Your task to perform on an android device: open app "Spotify: Music and Podcasts" (install if not already installed) Image 0: 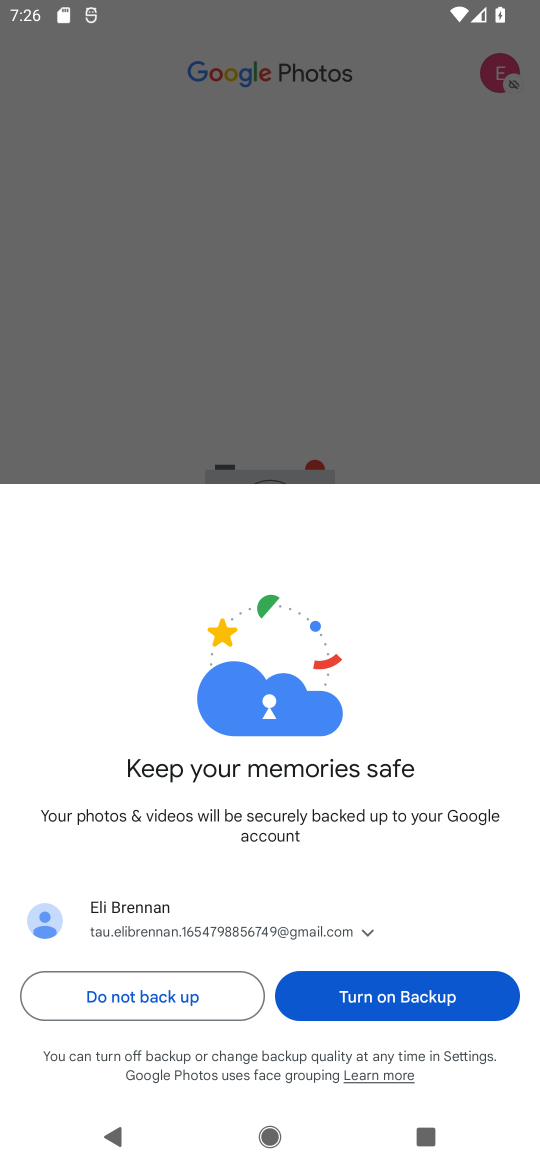
Step 0: press home button
Your task to perform on an android device: open app "Spotify: Music and Podcasts" (install if not already installed) Image 1: 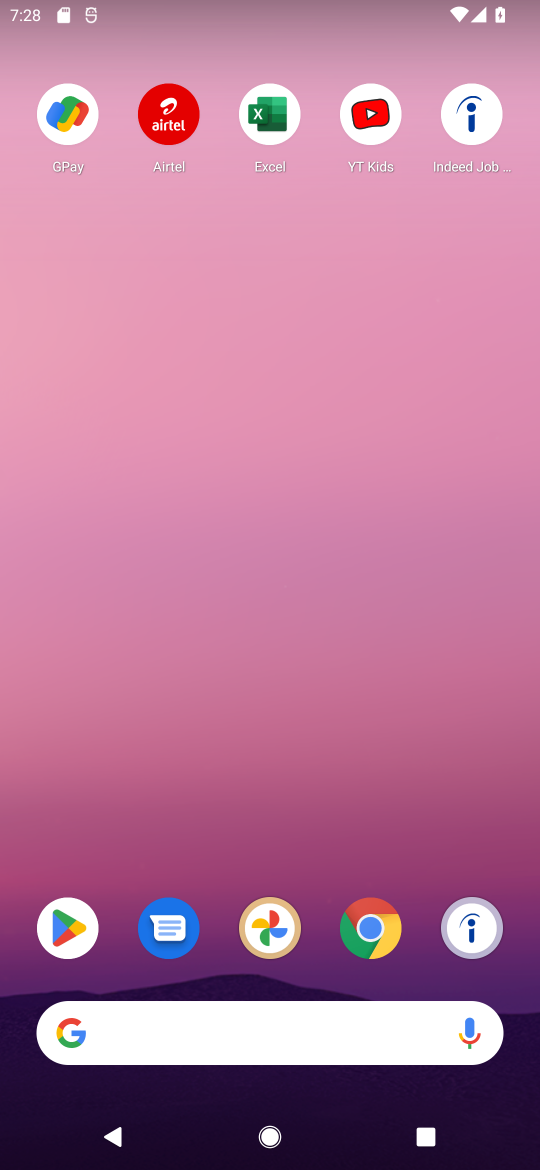
Step 1: click (88, 918)
Your task to perform on an android device: open app "Spotify: Music and Podcasts" (install if not already installed) Image 2: 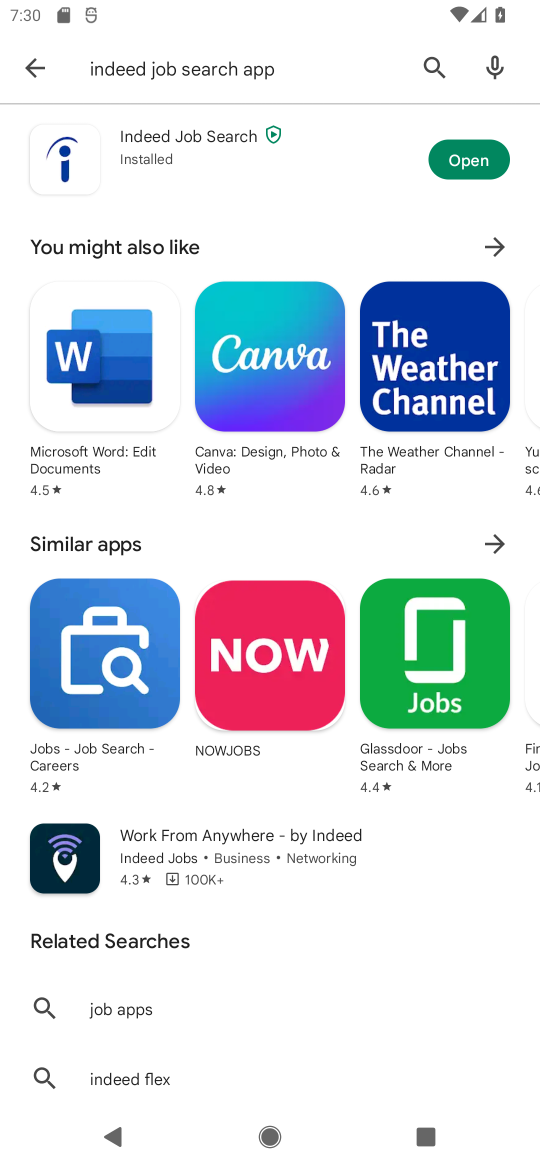
Step 2: click (425, 62)
Your task to perform on an android device: open app "Spotify: Music and Podcasts" (install if not already installed) Image 3: 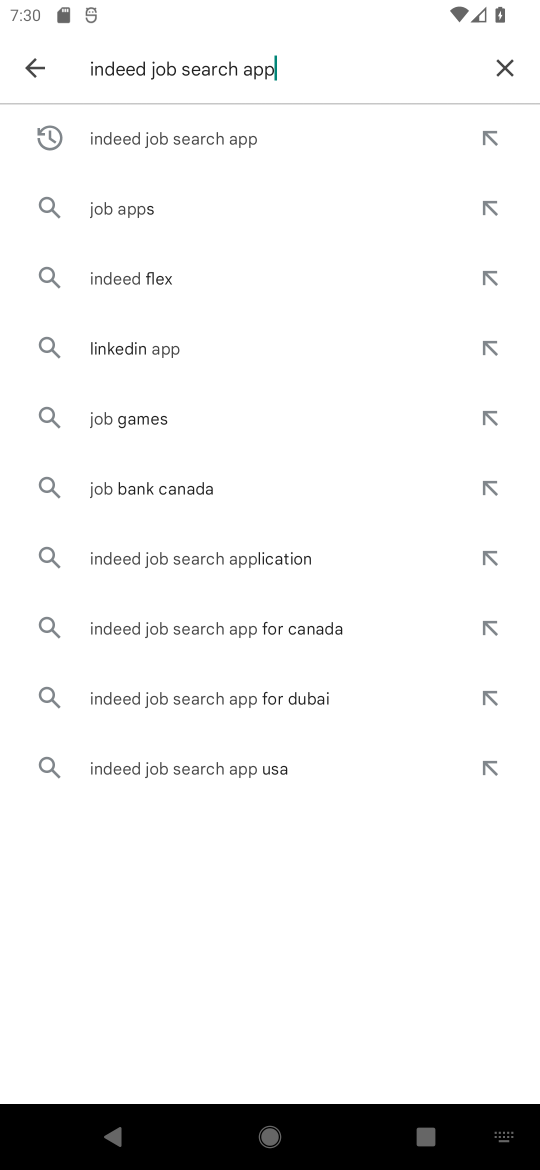
Step 3: click (522, 73)
Your task to perform on an android device: open app "Spotify: Music and Podcasts" (install if not already installed) Image 4: 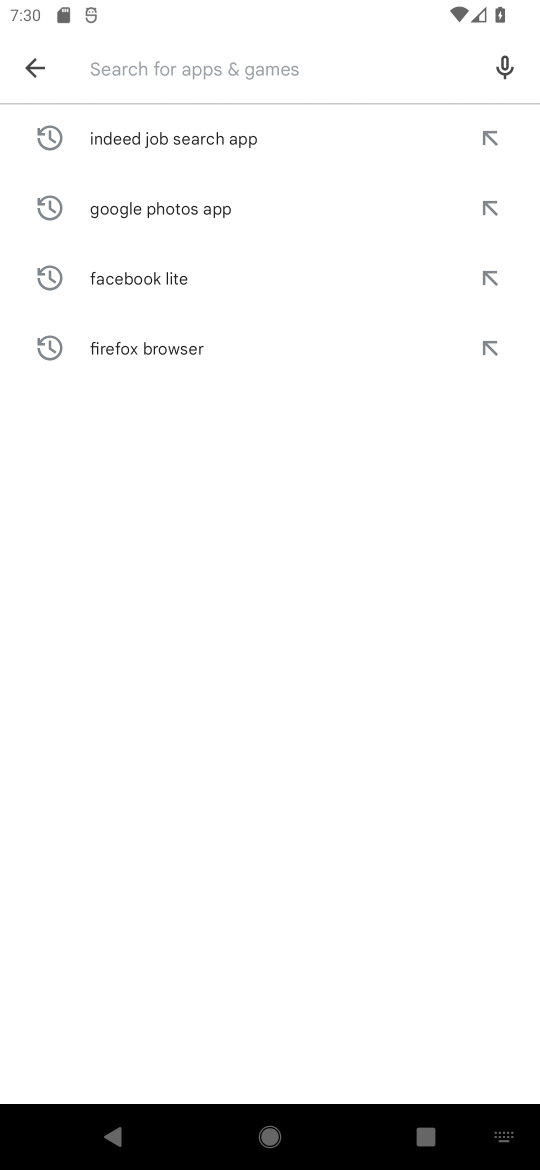
Step 4: type "spotify"
Your task to perform on an android device: open app "Spotify: Music and Podcasts" (install if not already installed) Image 5: 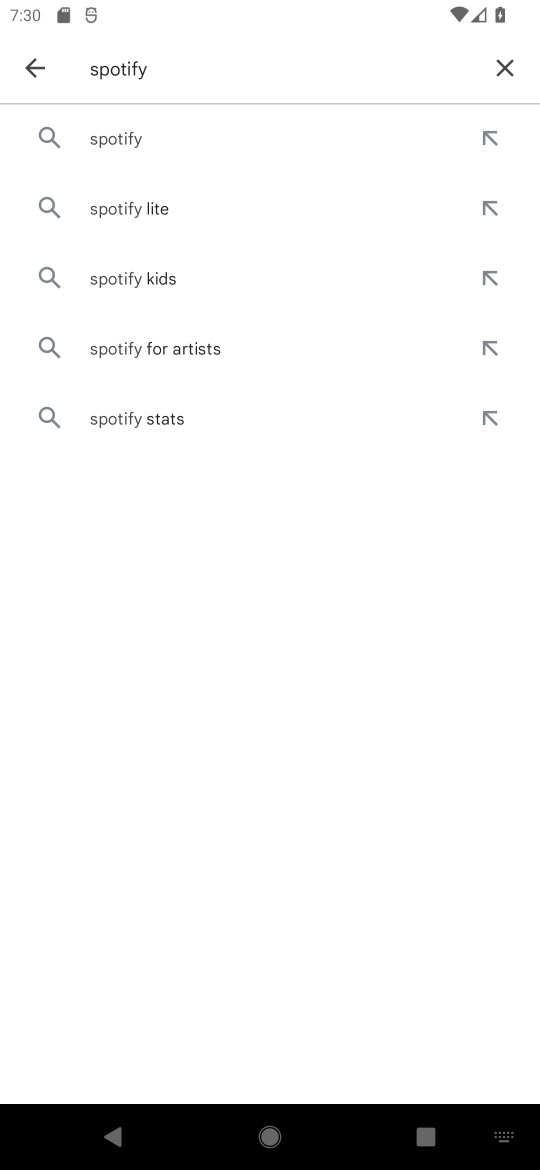
Step 5: click (299, 155)
Your task to perform on an android device: open app "Spotify: Music and Podcasts" (install if not already installed) Image 6: 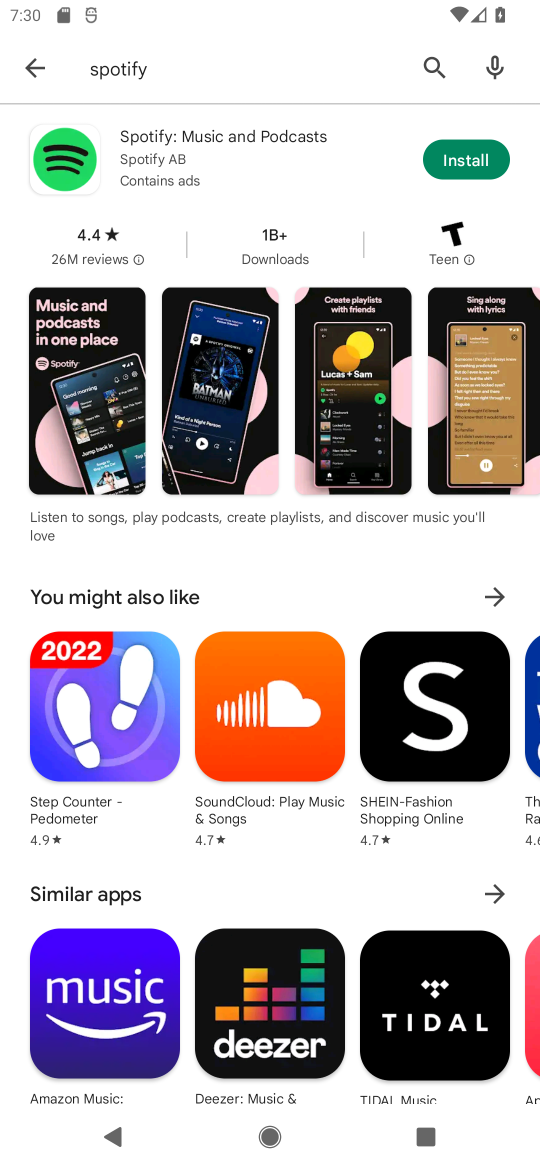
Step 6: click (480, 159)
Your task to perform on an android device: open app "Spotify: Music and Podcasts" (install if not already installed) Image 7: 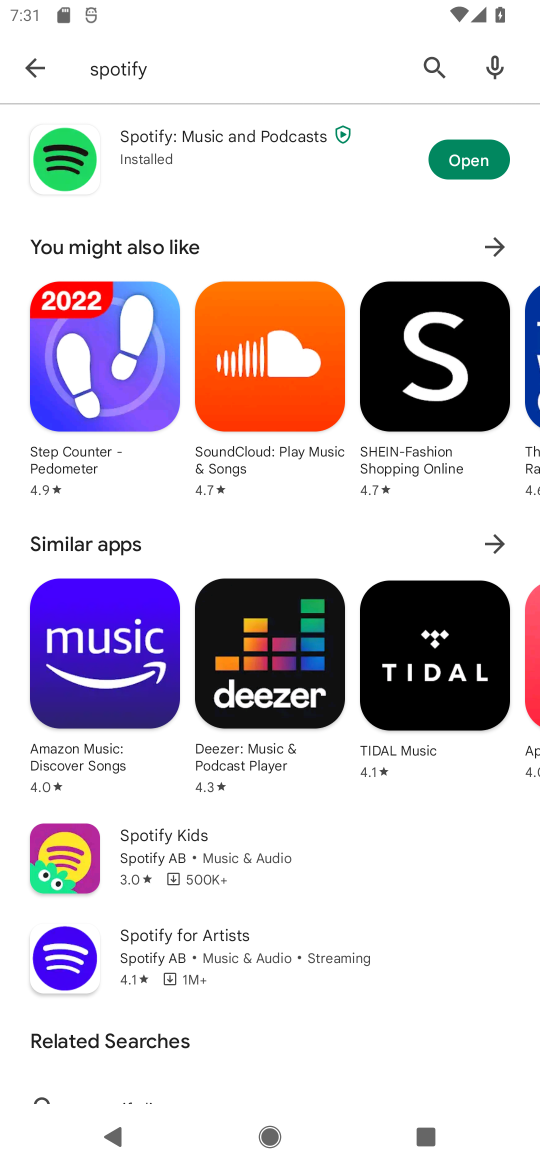
Step 7: click (497, 175)
Your task to perform on an android device: open app "Spotify: Music and Podcasts" (install if not already installed) Image 8: 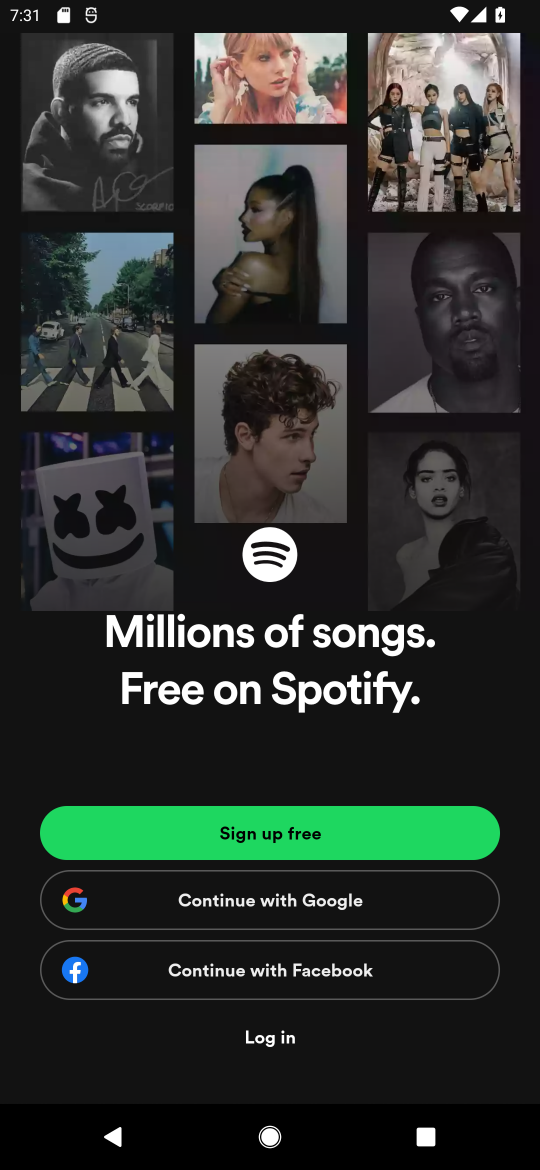
Step 8: task complete